Your task to perform on an android device: turn pop-ups off in chrome Image 0: 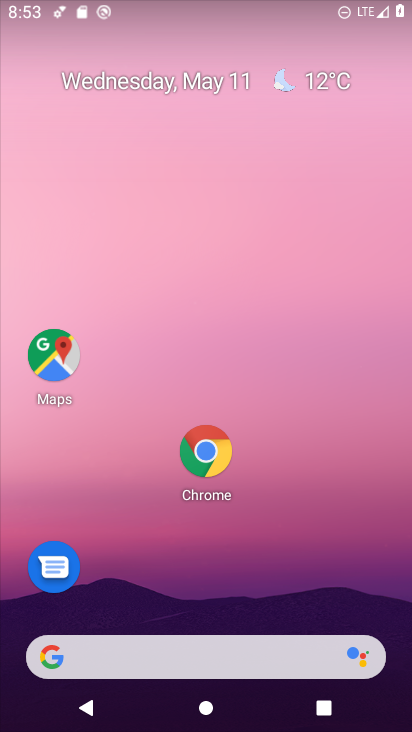
Step 0: click (214, 457)
Your task to perform on an android device: turn pop-ups off in chrome Image 1: 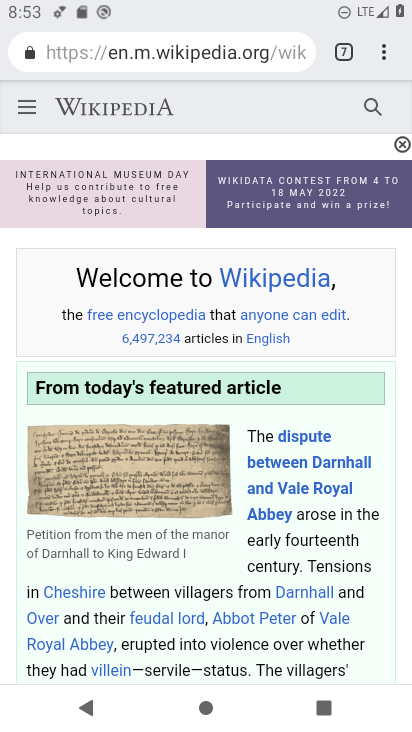
Step 1: drag from (383, 58) to (236, 604)
Your task to perform on an android device: turn pop-ups off in chrome Image 2: 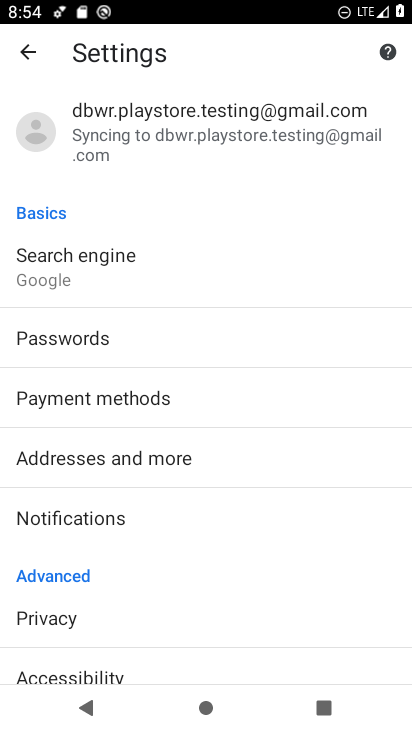
Step 2: drag from (162, 622) to (289, 349)
Your task to perform on an android device: turn pop-ups off in chrome Image 3: 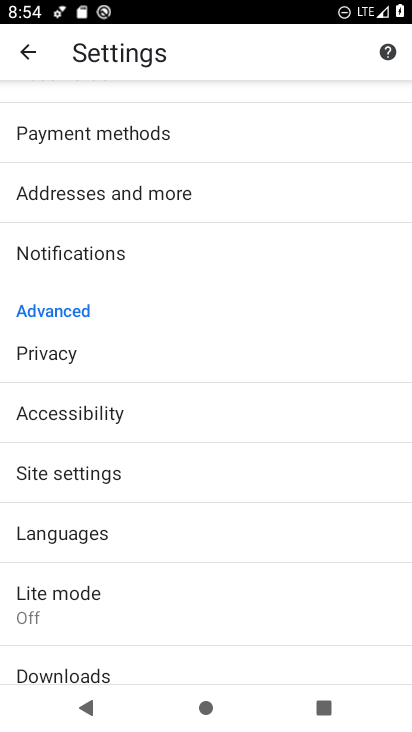
Step 3: click (121, 478)
Your task to perform on an android device: turn pop-ups off in chrome Image 4: 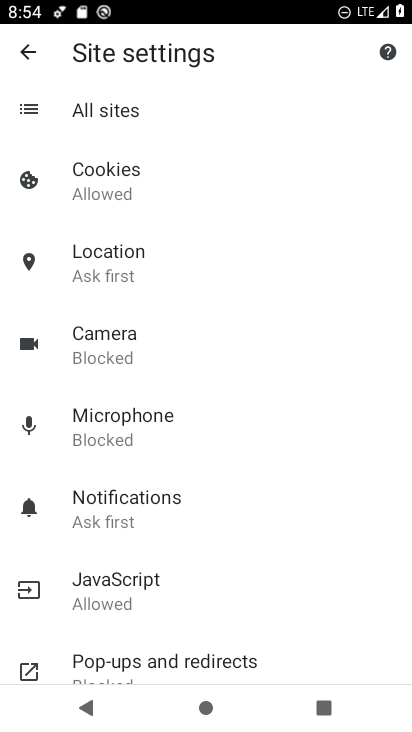
Step 4: click (174, 674)
Your task to perform on an android device: turn pop-ups off in chrome Image 5: 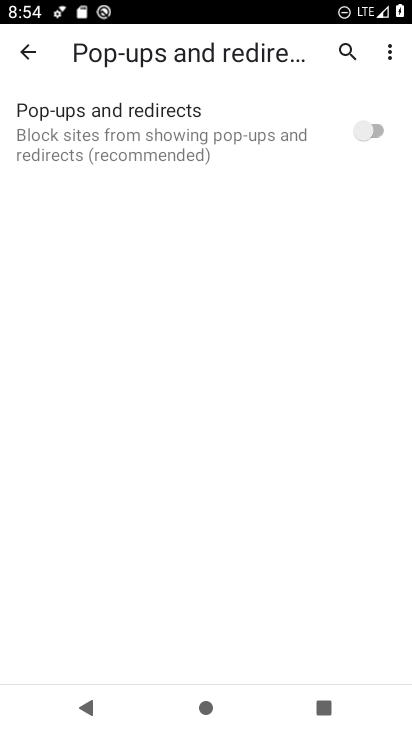
Step 5: task complete